Your task to perform on an android device: Open maps Image 0: 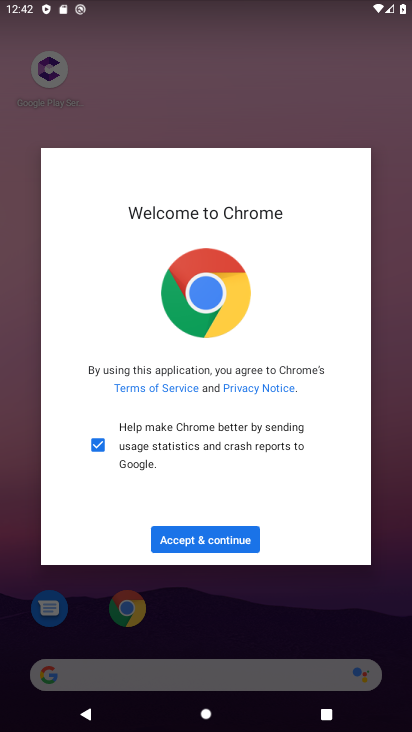
Step 0: press home button
Your task to perform on an android device: Open maps Image 1: 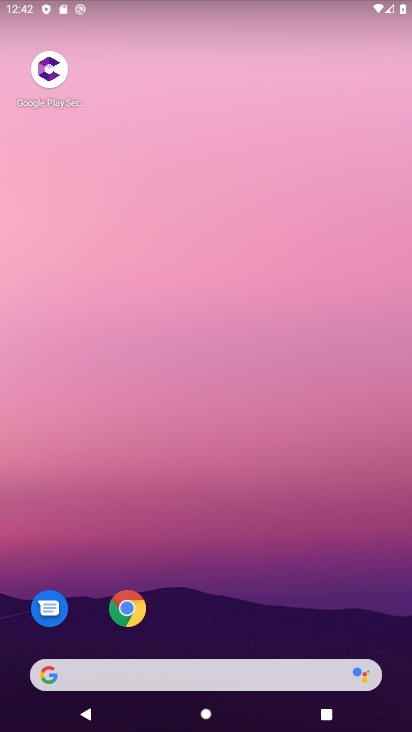
Step 1: drag from (229, 635) to (279, 203)
Your task to perform on an android device: Open maps Image 2: 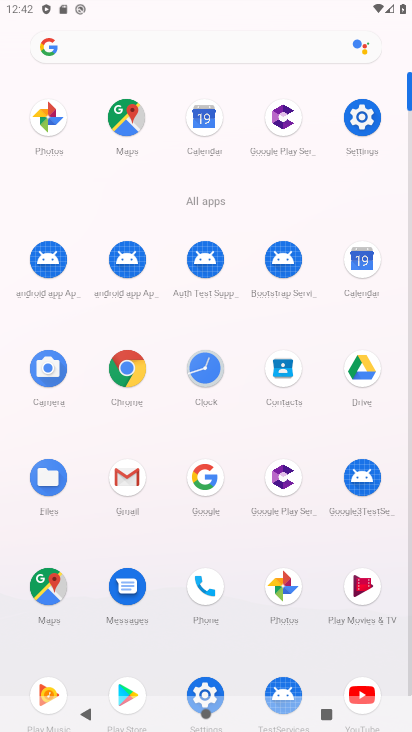
Step 2: click (52, 587)
Your task to perform on an android device: Open maps Image 3: 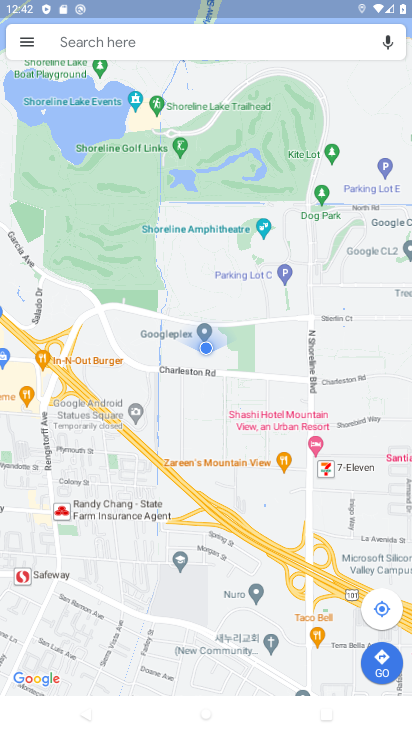
Step 3: task complete